Your task to perform on an android device: move a message to another label in the gmail app Image 0: 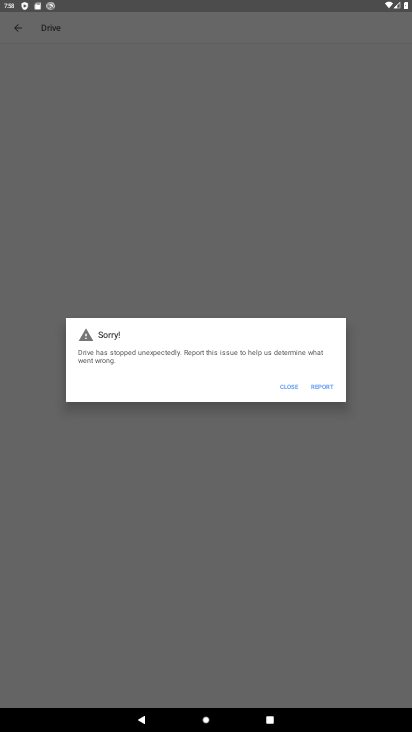
Step 0: press home button
Your task to perform on an android device: move a message to another label in the gmail app Image 1: 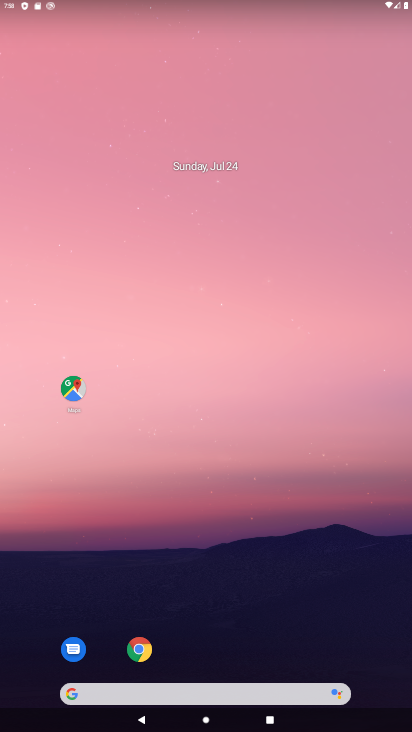
Step 1: drag from (197, 668) to (121, 185)
Your task to perform on an android device: move a message to another label in the gmail app Image 2: 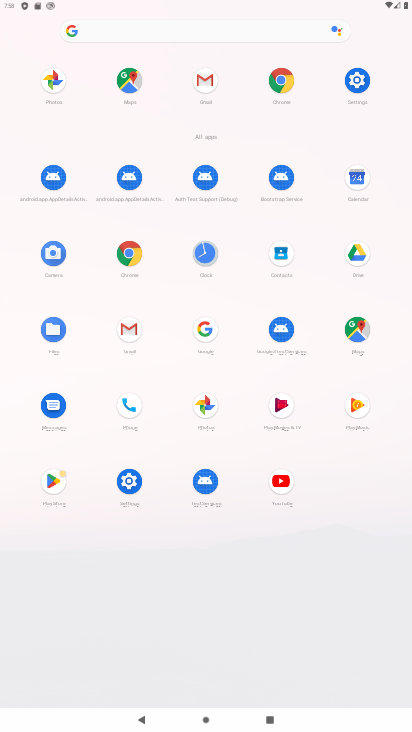
Step 2: click (136, 333)
Your task to perform on an android device: move a message to another label in the gmail app Image 3: 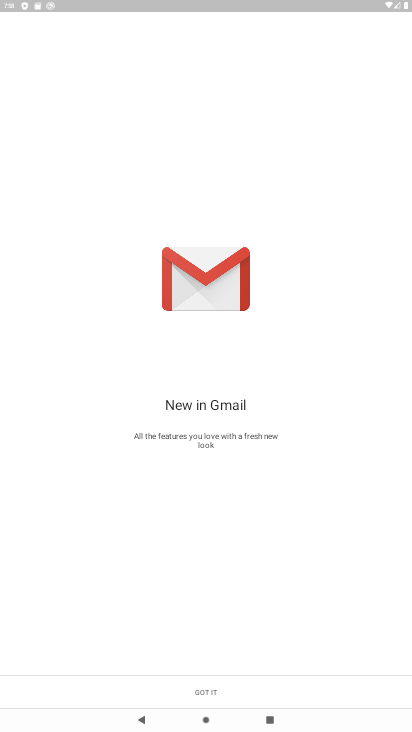
Step 3: click (203, 683)
Your task to perform on an android device: move a message to another label in the gmail app Image 4: 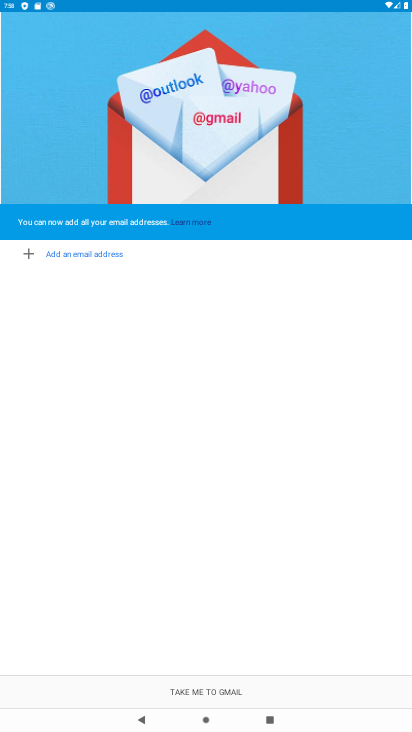
Step 4: click (241, 689)
Your task to perform on an android device: move a message to another label in the gmail app Image 5: 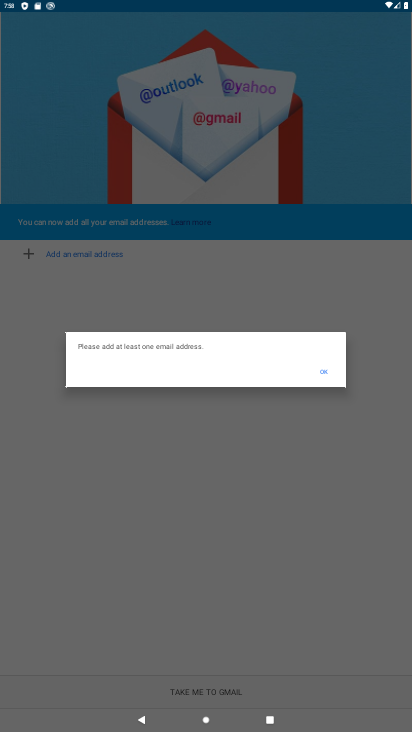
Step 5: task complete